Your task to perform on an android device: Do I have any events this weekend? Image 0: 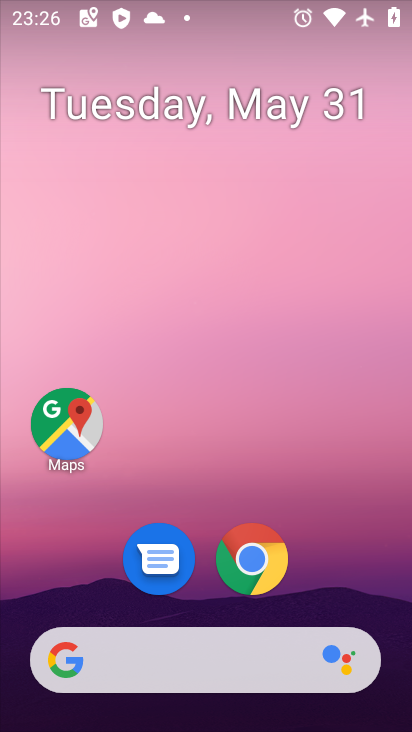
Step 0: drag from (303, 552) to (298, 74)
Your task to perform on an android device: Do I have any events this weekend? Image 1: 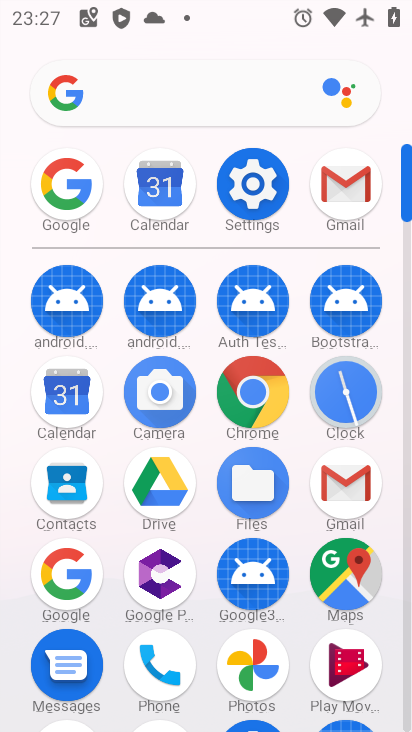
Step 1: click (71, 403)
Your task to perform on an android device: Do I have any events this weekend? Image 2: 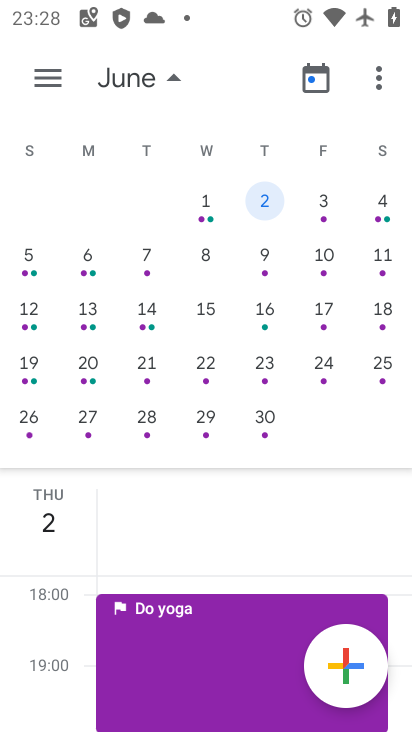
Step 2: task complete